Your task to perform on an android device: Go to Amazon Image 0: 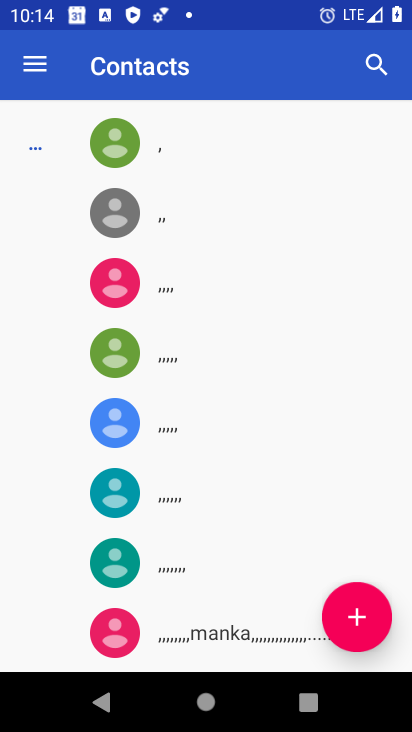
Step 0: press home button
Your task to perform on an android device: Go to Amazon Image 1: 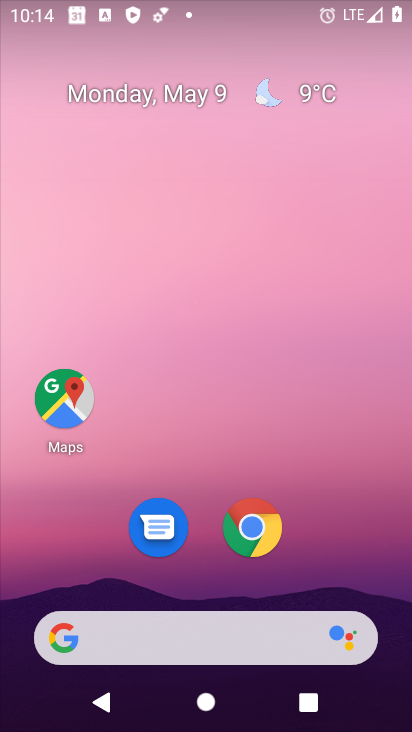
Step 1: click (250, 527)
Your task to perform on an android device: Go to Amazon Image 2: 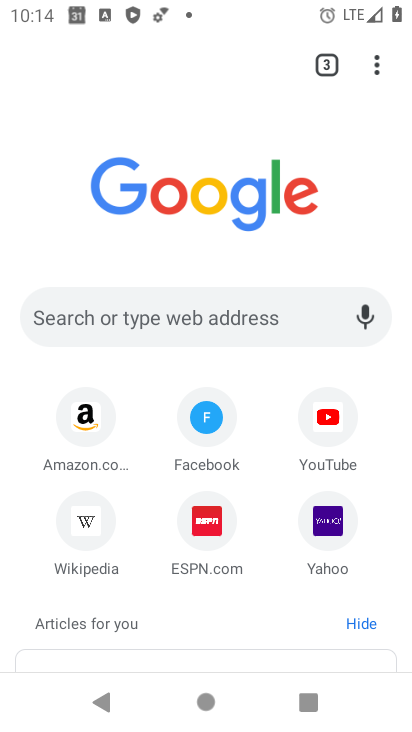
Step 2: click (88, 419)
Your task to perform on an android device: Go to Amazon Image 3: 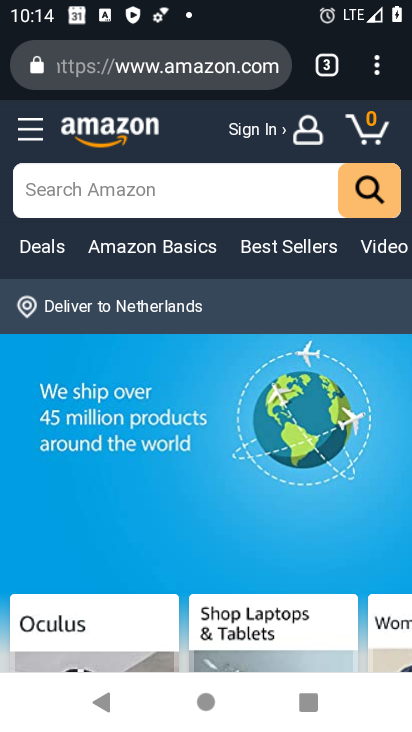
Step 3: task complete